Your task to perform on an android device: Open eBay Image 0: 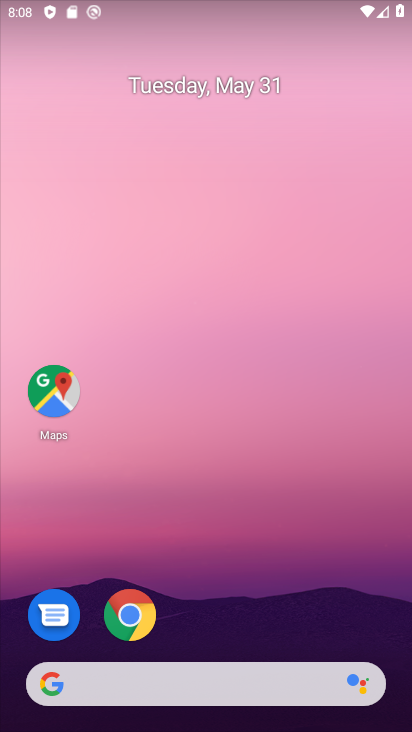
Step 0: click (133, 618)
Your task to perform on an android device: Open eBay Image 1: 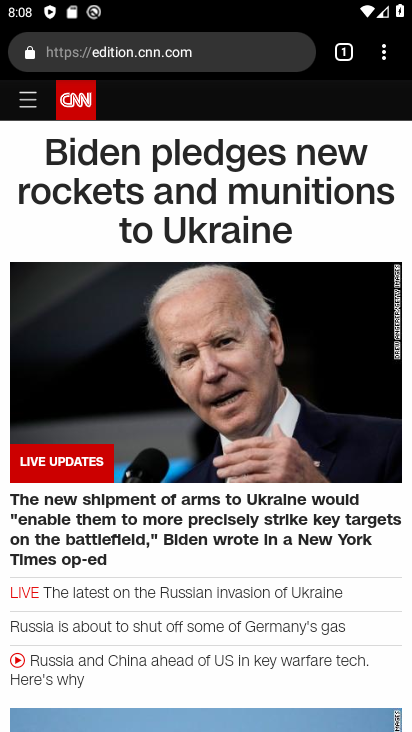
Step 1: click (238, 59)
Your task to perform on an android device: Open eBay Image 2: 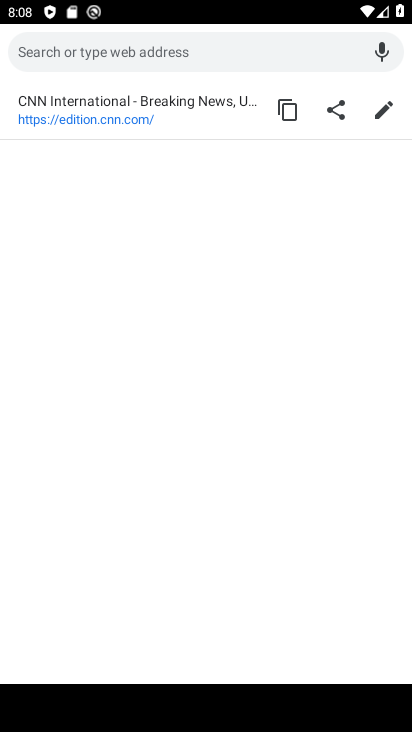
Step 2: type "ebay"
Your task to perform on an android device: Open eBay Image 3: 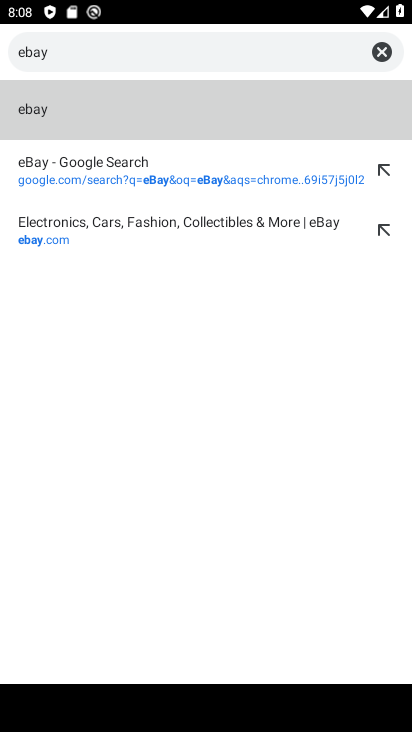
Step 3: click (45, 116)
Your task to perform on an android device: Open eBay Image 4: 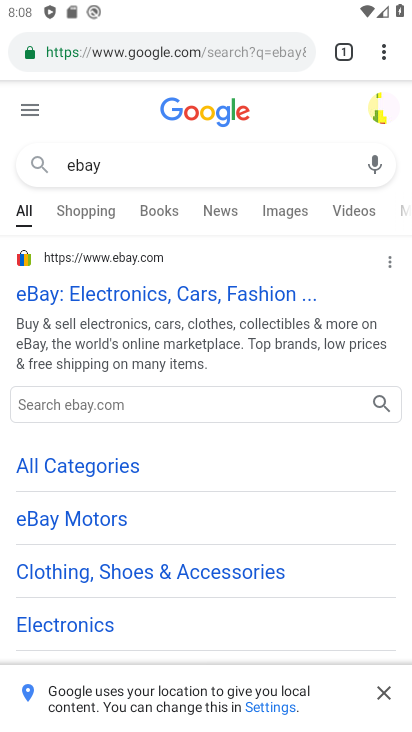
Step 4: click (92, 274)
Your task to perform on an android device: Open eBay Image 5: 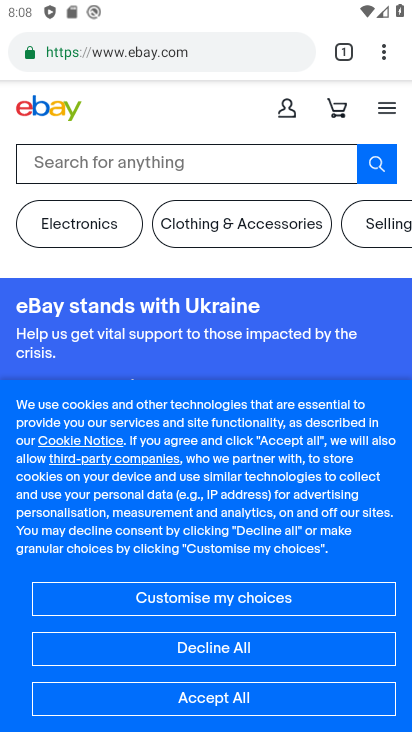
Step 5: task complete